Your task to perform on an android device: toggle translation in the chrome app Image 0: 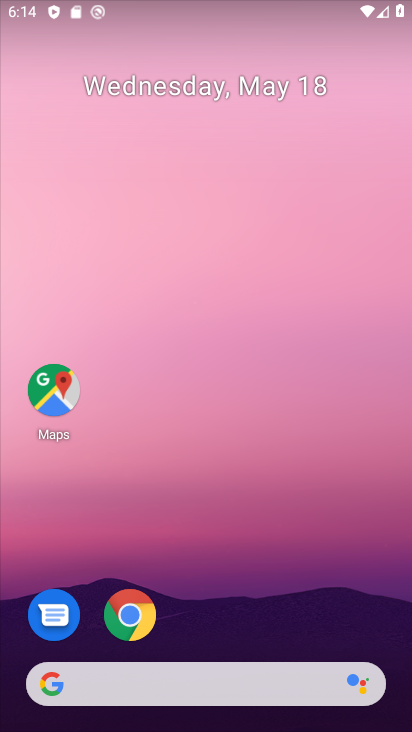
Step 0: drag from (304, 163) to (294, 0)
Your task to perform on an android device: toggle translation in the chrome app Image 1: 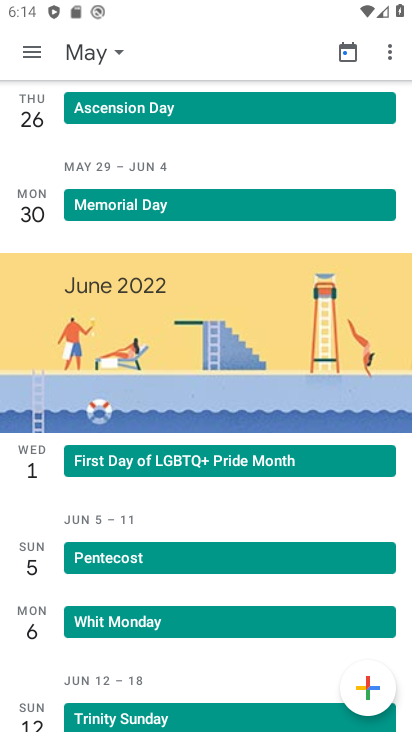
Step 1: press home button
Your task to perform on an android device: toggle translation in the chrome app Image 2: 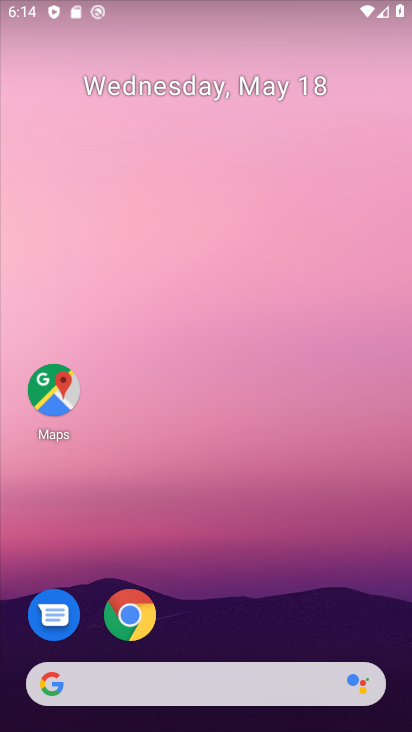
Step 2: drag from (239, 668) to (271, 43)
Your task to perform on an android device: toggle translation in the chrome app Image 3: 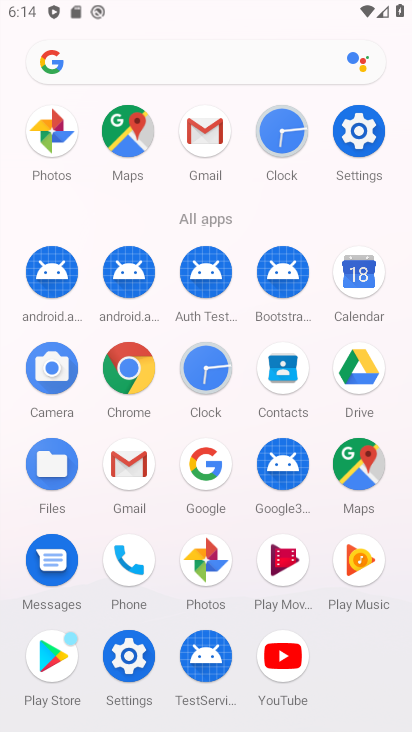
Step 3: click (114, 378)
Your task to perform on an android device: toggle translation in the chrome app Image 4: 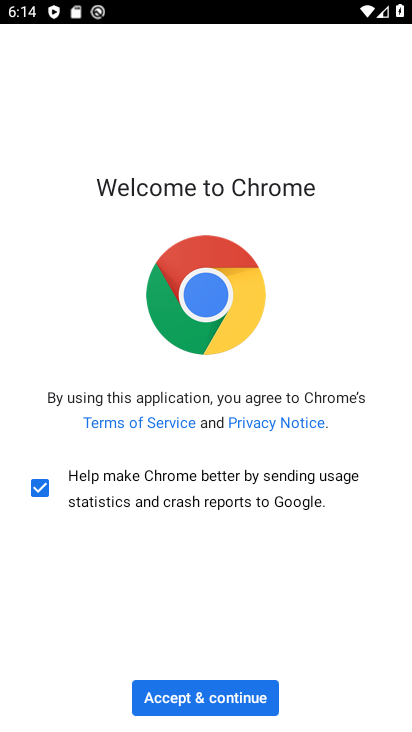
Step 4: click (192, 679)
Your task to perform on an android device: toggle translation in the chrome app Image 5: 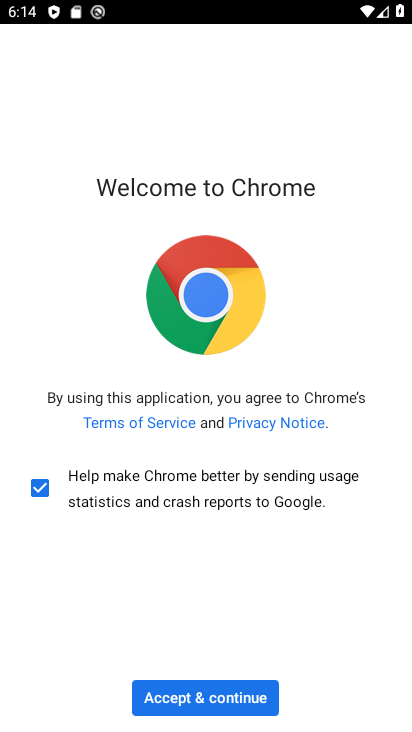
Step 5: click (192, 698)
Your task to perform on an android device: toggle translation in the chrome app Image 6: 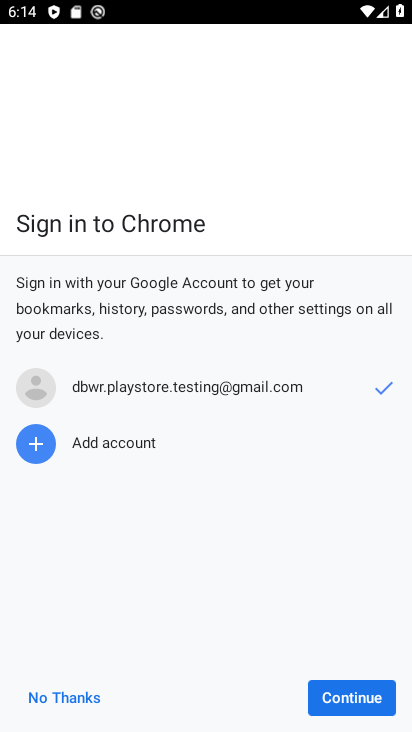
Step 6: click (89, 695)
Your task to perform on an android device: toggle translation in the chrome app Image 7: 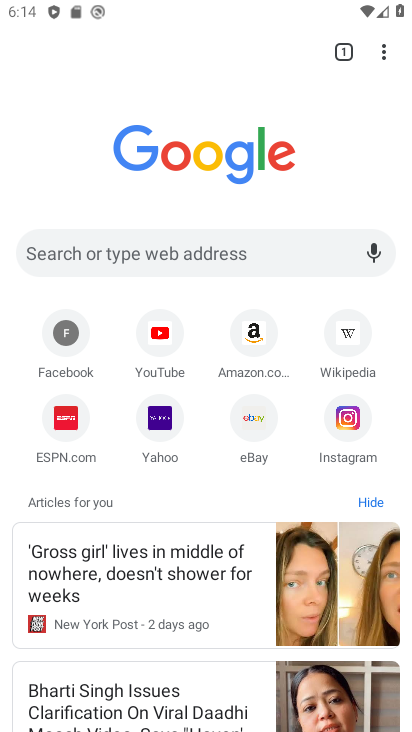
Step 7: drag from (384, 44) to (206, 440)
Your task to perform on an android device: toggle translation in the chrome app Image 8: 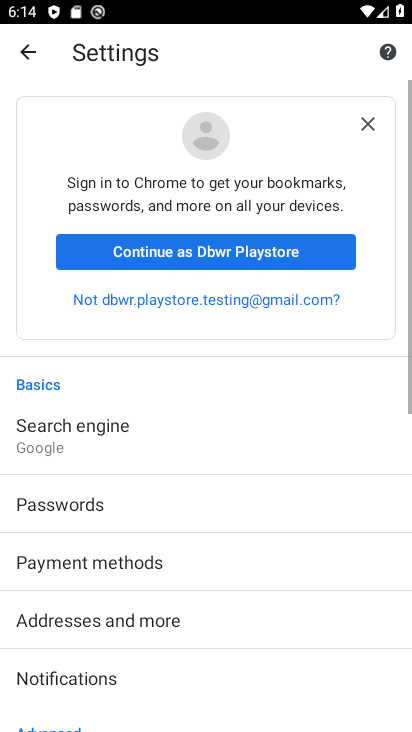
Step 8: drag from (149, 685) to (238, 29)
Your task to perform on an android device: toggle translation in the chrome app Image 9: 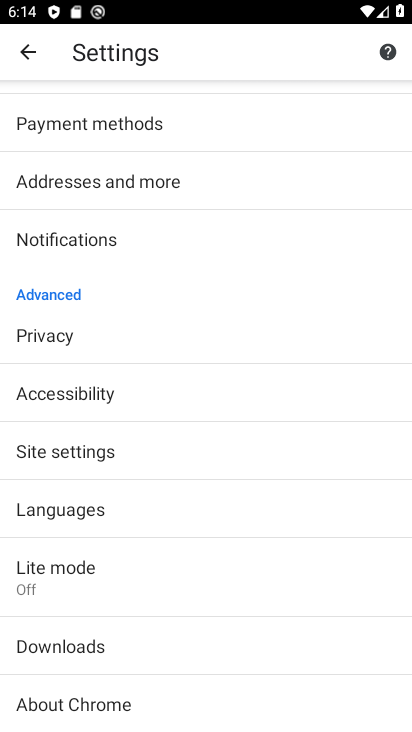
Step 9: click (92, 514)
Your task to perform on an android device: toggle translation in the chrome app Image 10: 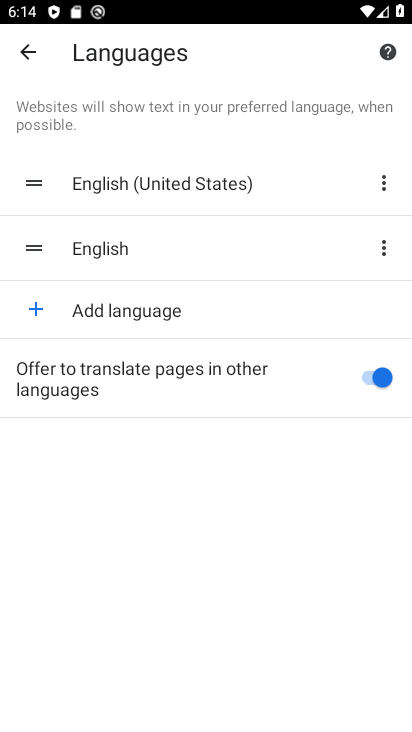
Step 10: click (365, 380)
Your task to perform on an android device: toggle translation in the chrome app Image 11: 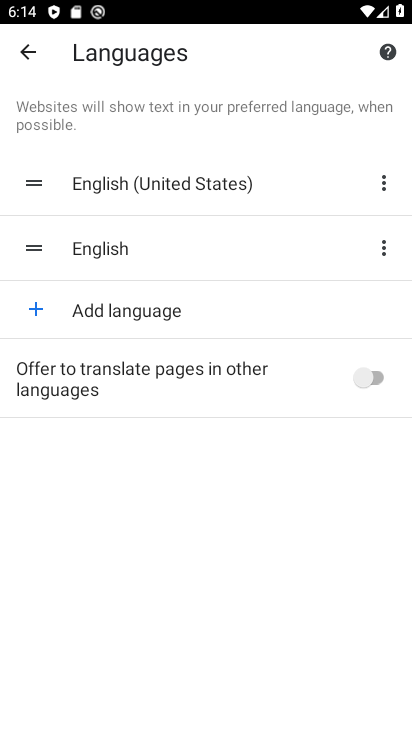
Step 11: task complete